Your task to perform on an android device: Check the weather Image 0: 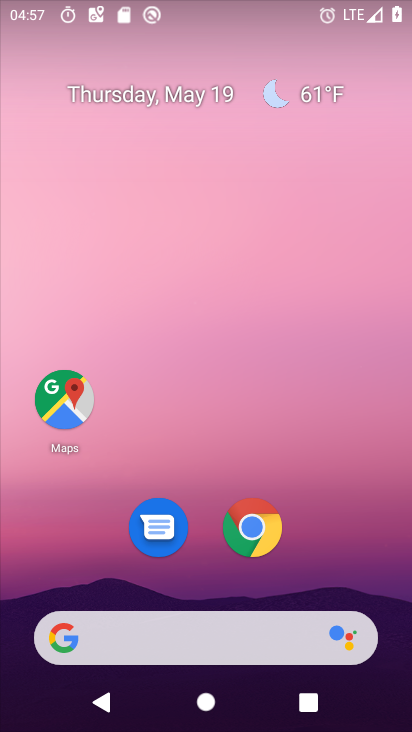
Step 0: click (304, 88)
Your task to perform on an android device: Check the weather Image 1: 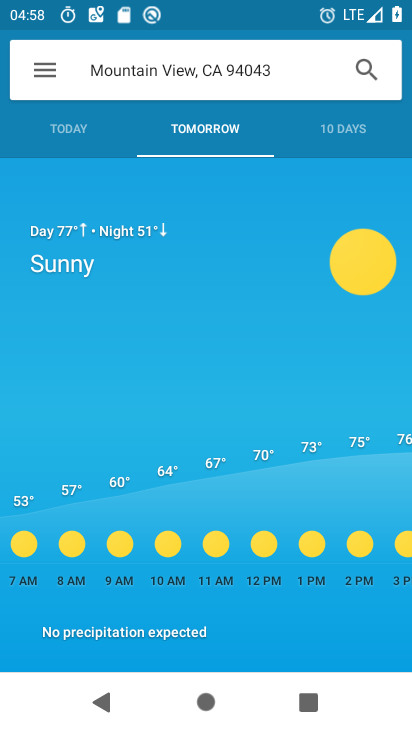
Step 1: click (52, 129)
Your task to perform on an android device: Check the weather Image 2: 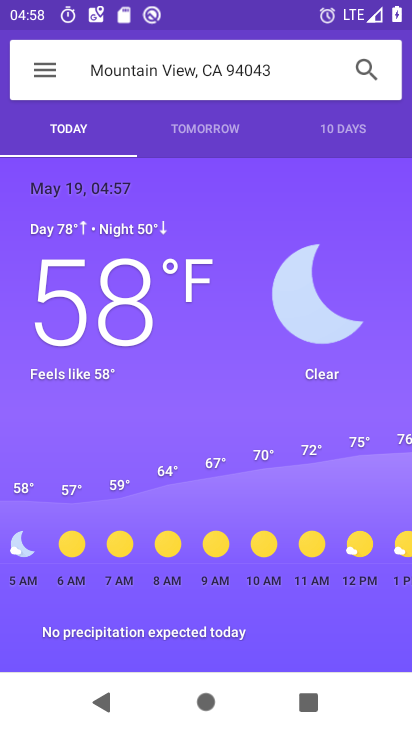
Step 2: task complete